Your task to perform on an android device: turn on sleep mode Image 0: 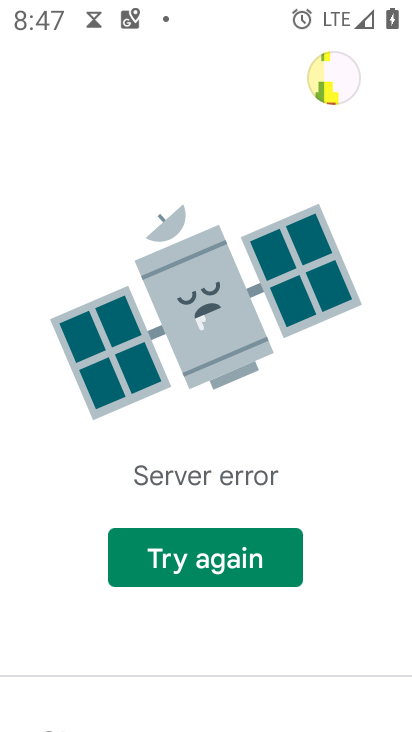
Step 0: press home button
Your task to perform on an android device: turn on sleep mode Image 1: 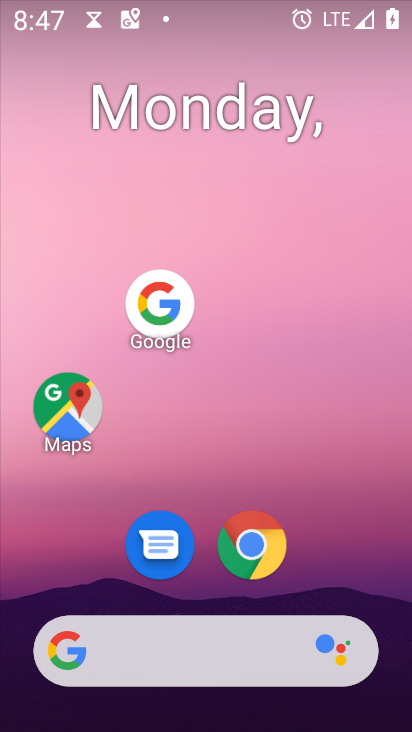
Step 1: drag from (161, 646) to (268, 110)
Your task to perform on an android device: turn on sleep mode Image 2: 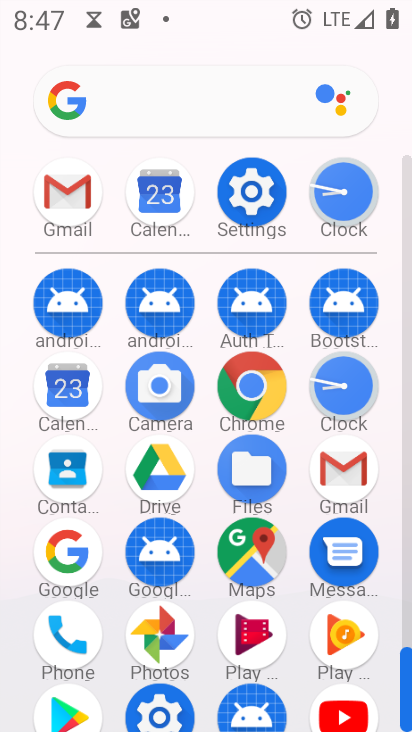
Step 2: click (253, 215)
Your task to perform on an android device: turn on sleep mode Image 3: 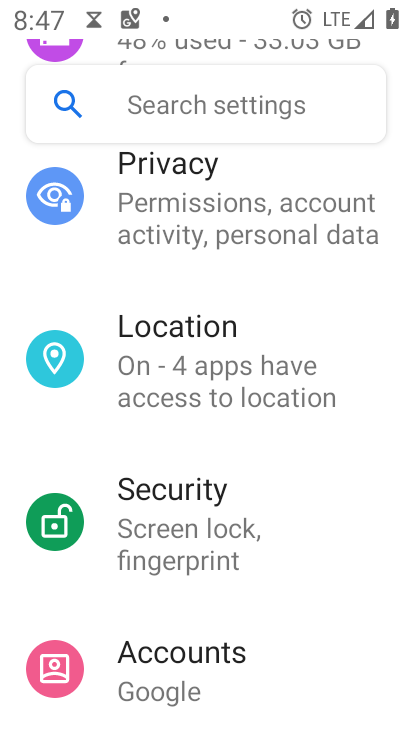
Step 3: drag from (322, 284) to (249, 687)
Your task to perform on an android device: turn on sleep mode Image 4: 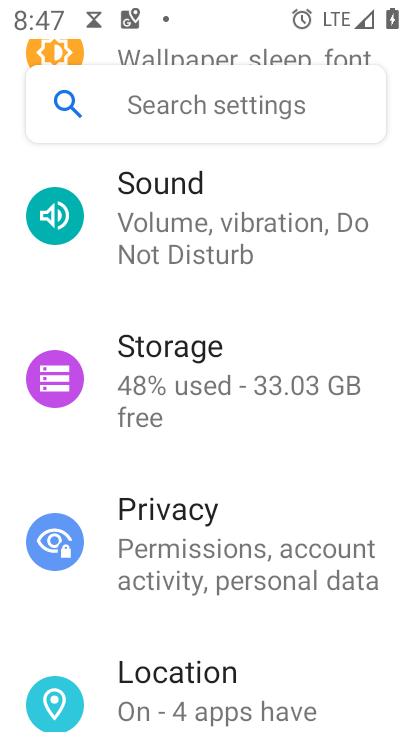
Step 4: drag from (308, 300) to (260, 620)
Your task to perform on an android device: turn on sleep mode Image 5: 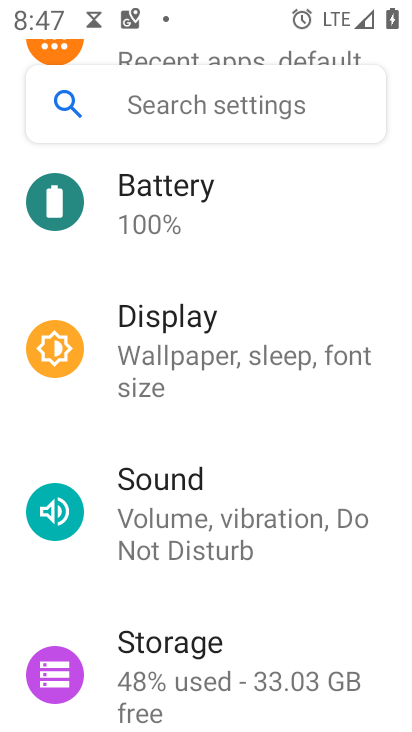
Step 5: click (174, 347)
Your task to perform on an android device: turn on sleep mode Image 6: 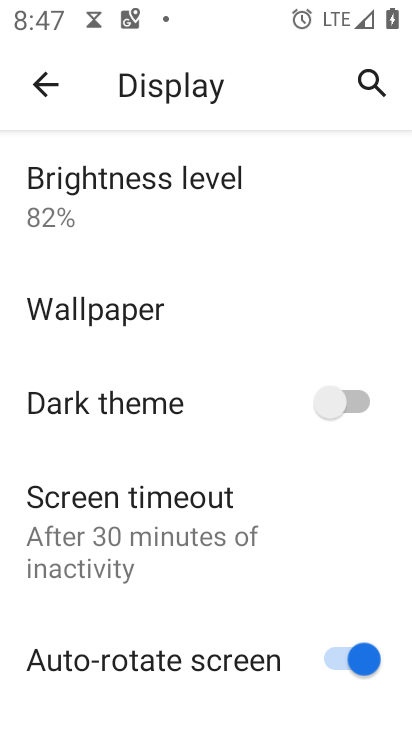
Step 6: task complete